Your task to perform on an android device: Check the settings for the Uber app Image 0: 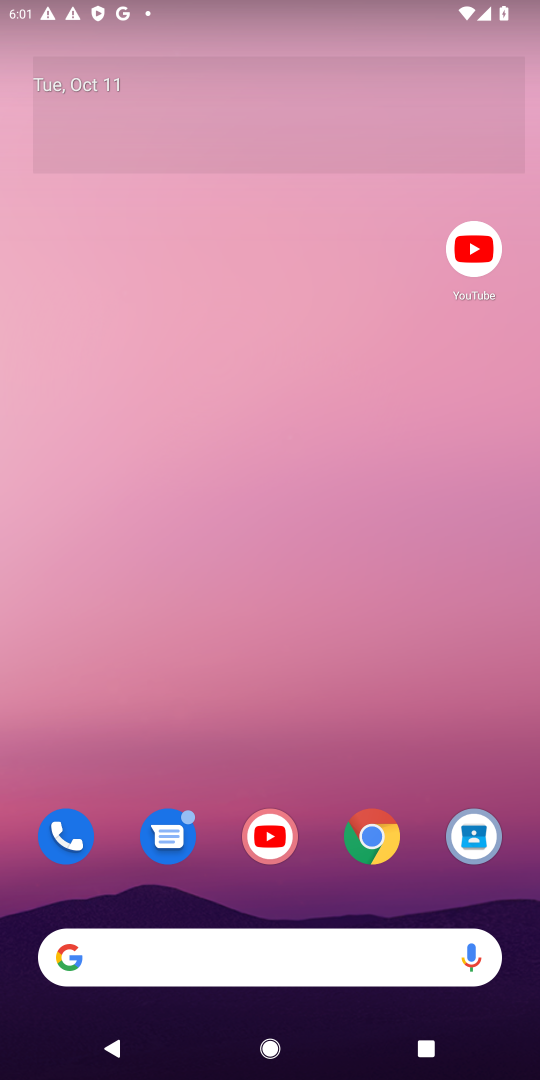
Step 0: drag from (332, 955) to (345, 438)
Your task to perform on an android device: Check the settings for the Uber app Image 1: 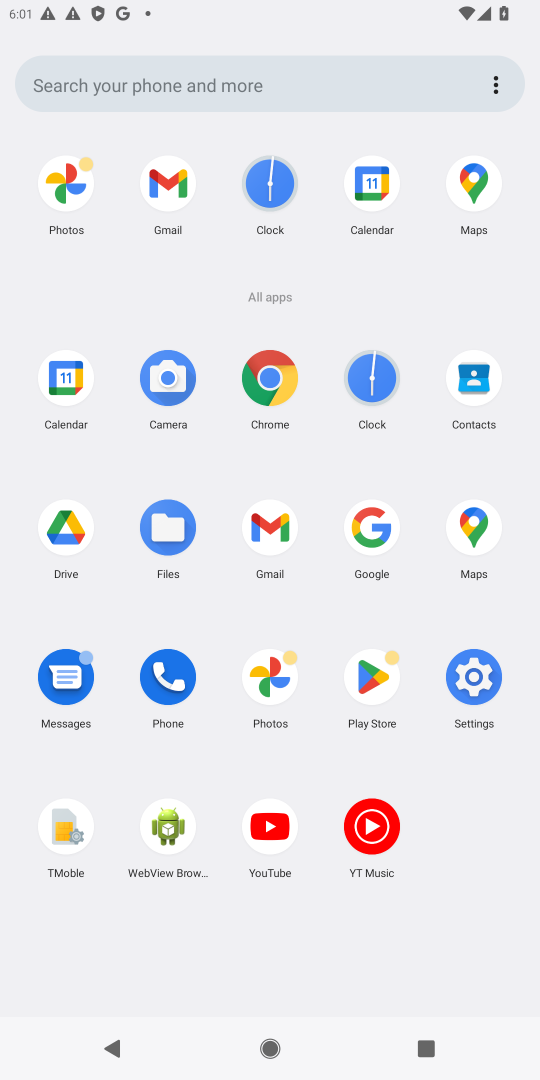
Step 1: click (468, 685)
Your task to perform on an android device: Check the settings for the Uber app Image 2: 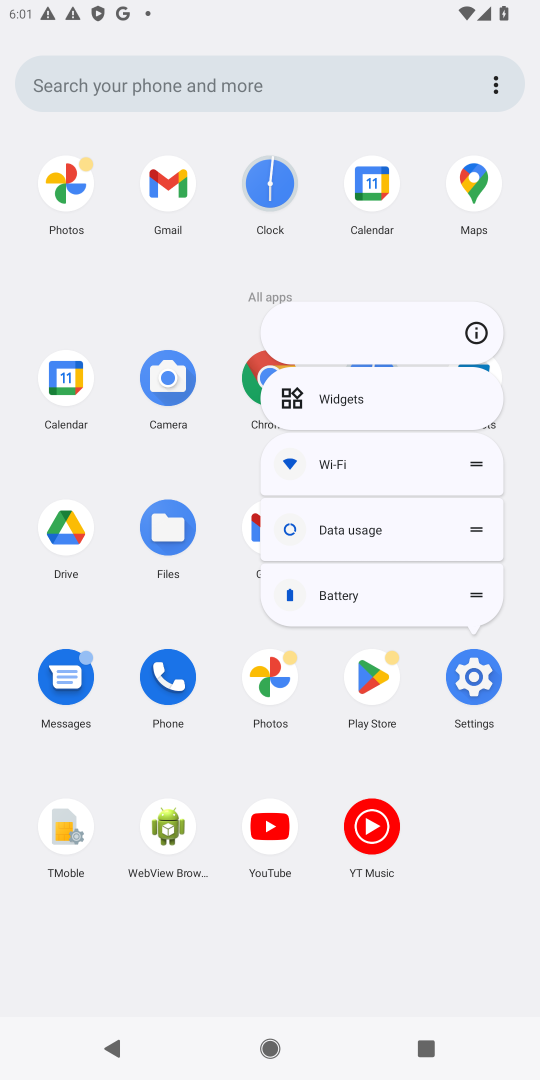
Step 2: click (469, 677)
Your task to perform on an android device: Check the settings for the Uber app Image 3: 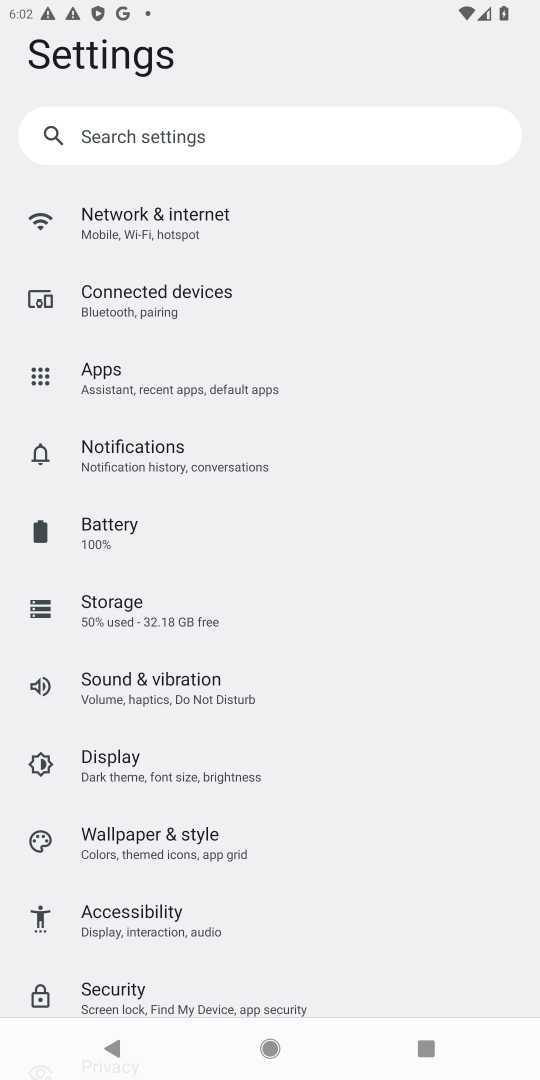
Step 3: task complete